Your task to perform on an android device: What's on my calendar today? Image 0: 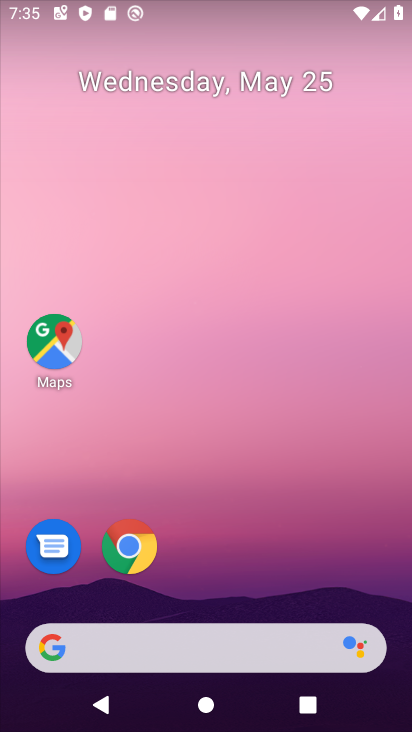
Step 0: drag from (149, 648) to (294, 138)
Your task to perform on an android device: What's on my calendar today? Image 1: 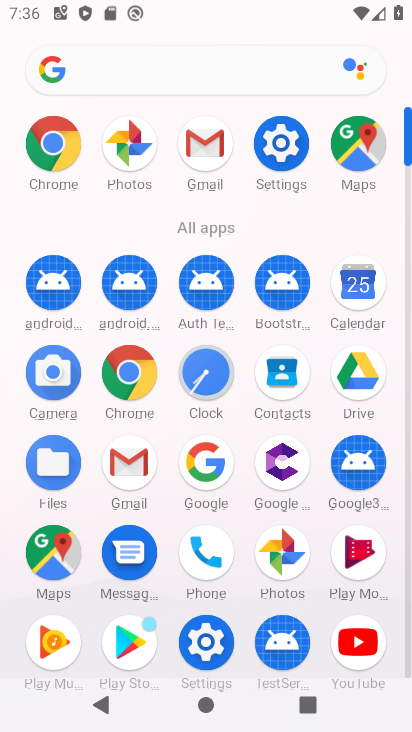
Step 1: click (361, 297)
Your task to perform on an android device: What's on my calendar today? Image 2: 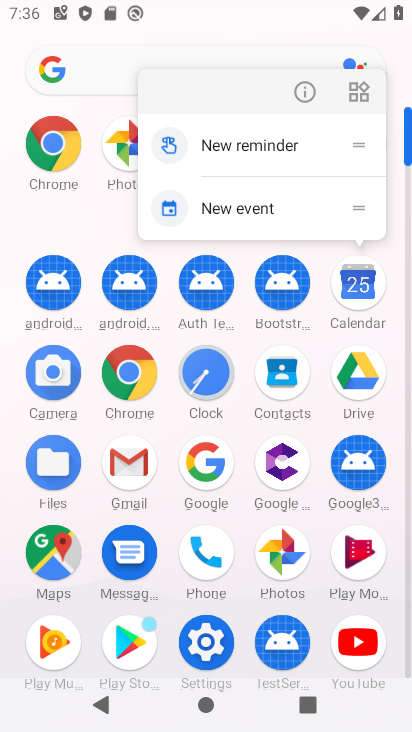
Step 2: click (362, 290)
Your task to perform on an android device: What's on my calendar today? Image 3: 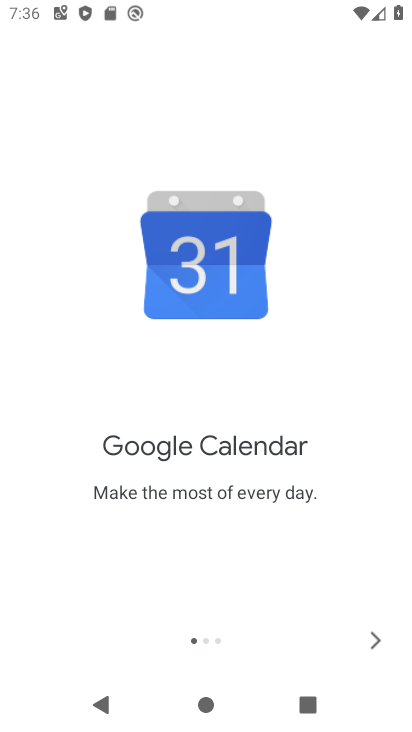
Step 3: click (373, 637)
Your task to perform on an android device: What's on my calendar today? Image 4: 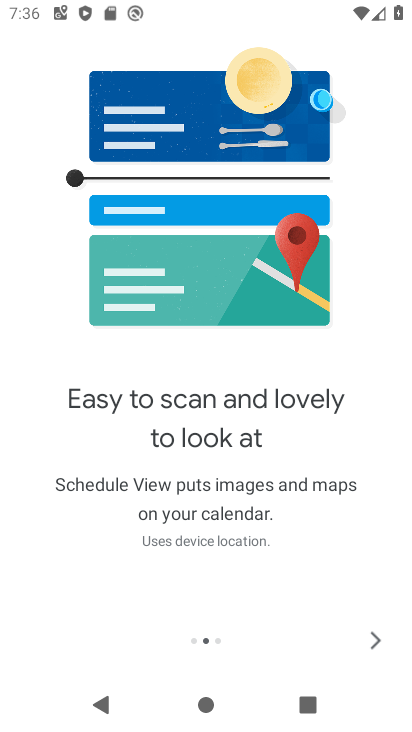
Step 4: click (373, 637)
Your task to perform on an android device: What's on my calendar today? Image 5: 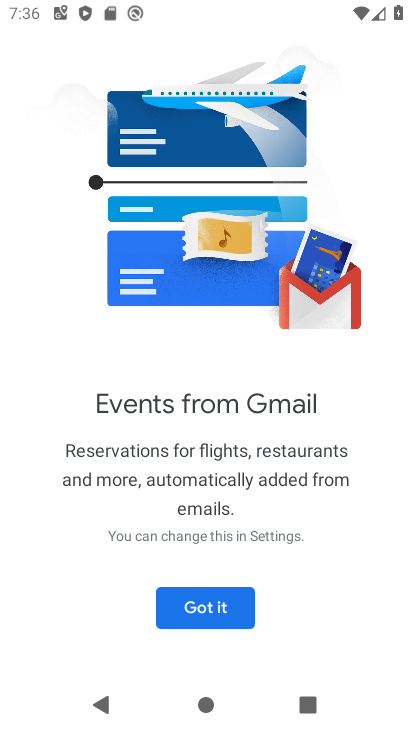
Step 5: click (209, 599)
Your task to perform on an android device: What's on my calendar today? Image 6: 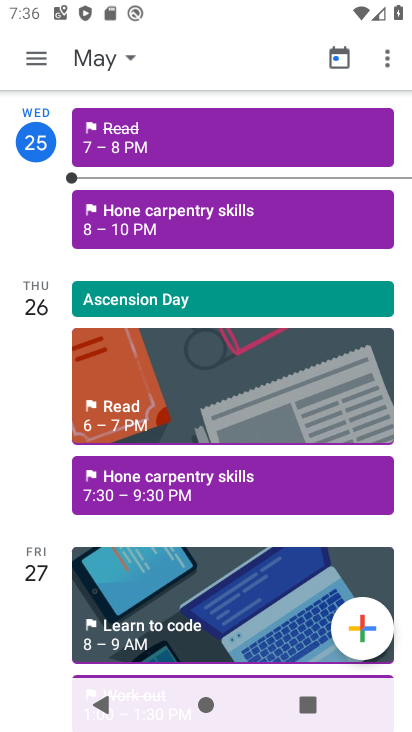
Step 6: click (92, 55)
Your task to perform on an android device: What's on my calendar today? Image 7: 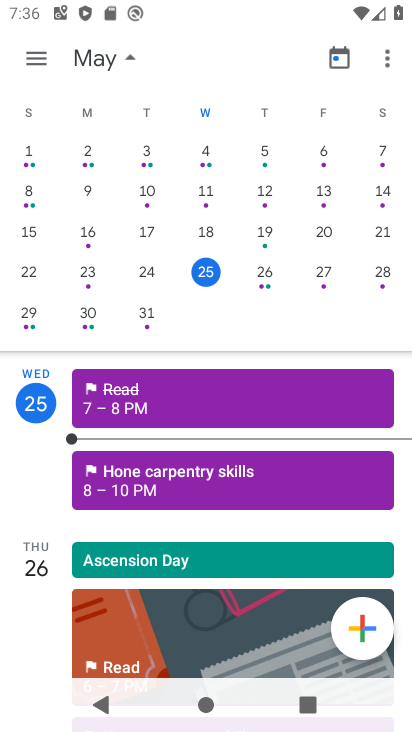
Step 7: click (207, 276)
Your task to perform on an android device: What's on my calendar today? Image 8: 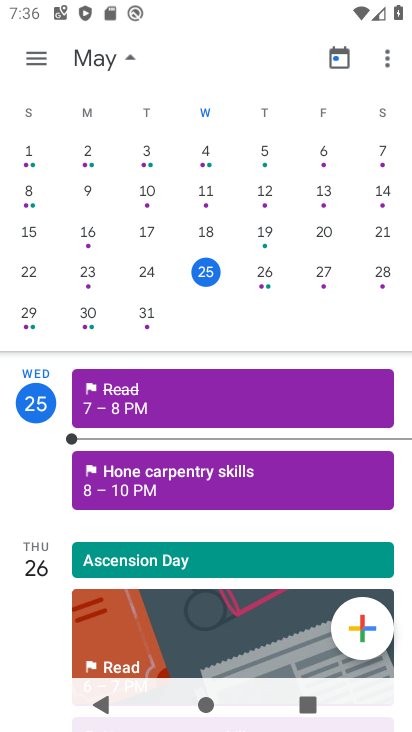
Step 8: click (35, 54)
Your task to perform on an android device: What's on my calendar today? Image 9: 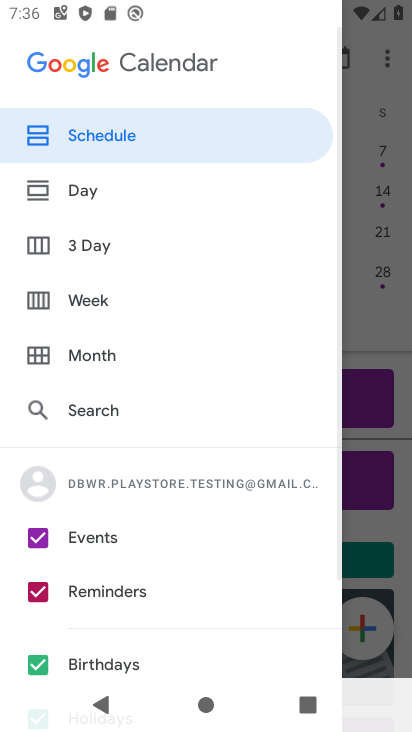
Step 9: click (95, 133)
Your task to perform on an android device: What's on my calendar today? Image 10: 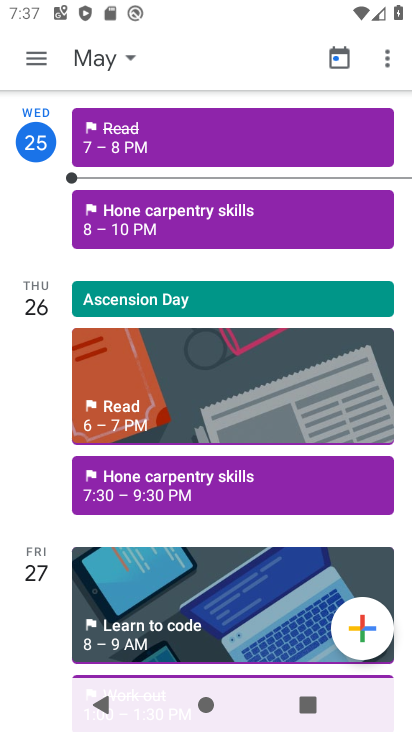
Step 10: click (187, 221)
Your task to perform on an android device: What's on my calendar today? Image 11: 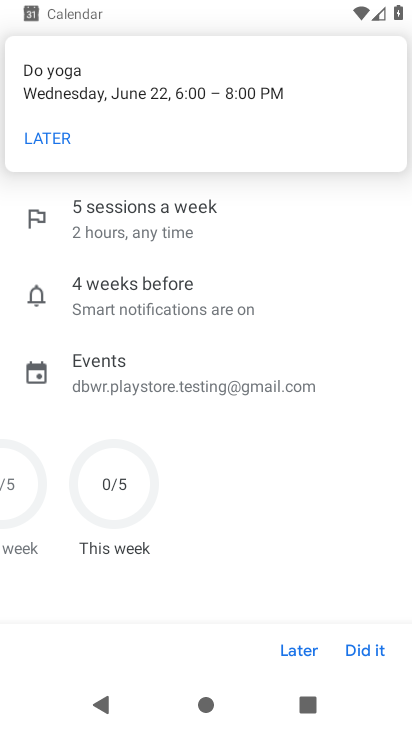
Step 11: task complete